Your task to perform on an android device: stop showing notifications on the lock screen Image 0: 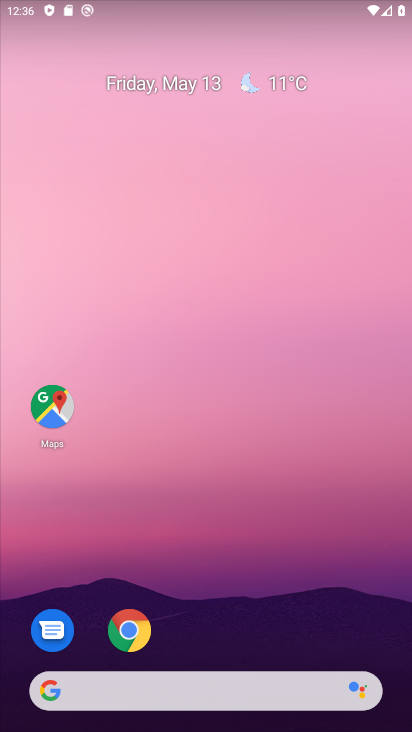
Step 0: drag from (365, 647) to (399, 0)
Your task to perform on an android device: stop showing notifications on the lock screen Image 1: 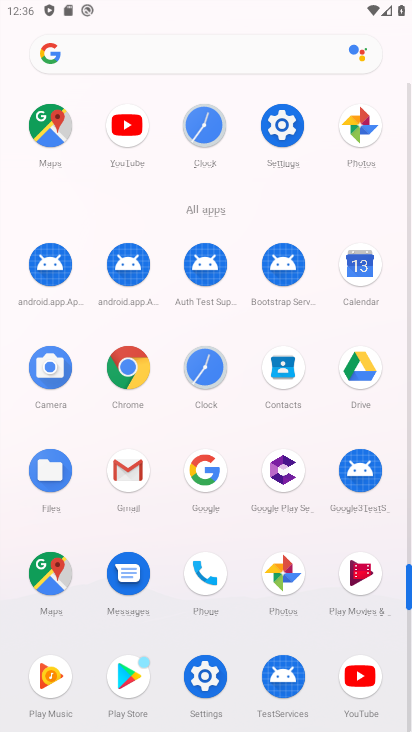
Step 1: click (282, 133)
Your task to perform on an android device: stop showing notifications on the lock screen Image 2: 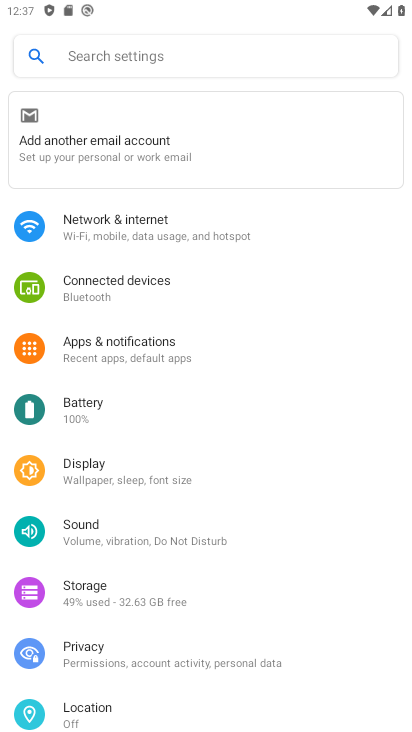
Step 2: click (126, 358)
Your task to perform on an android device: stop showing notifications on the lock screen Image 3: 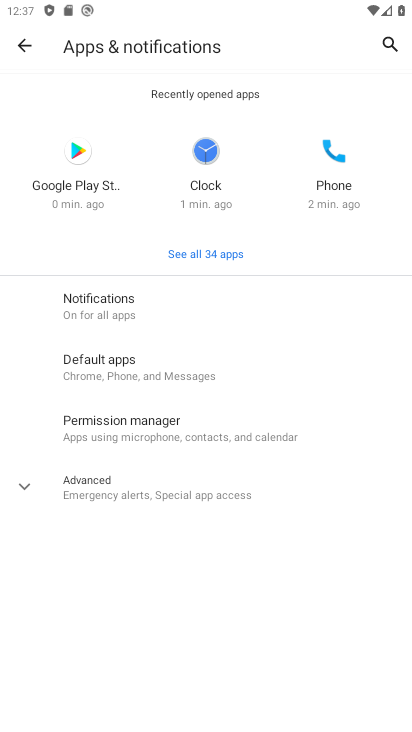
Step 3: click (101, 315)
Your task to perform on an android device: stop showing notifications on the lock screen Image 4: 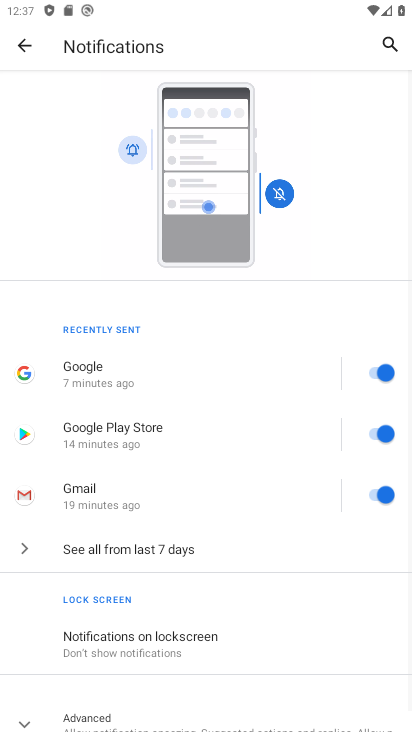
Step 4: click (130, 637)
Your task to perform on an android device: stop showing notifications on the lock screen Image 5: 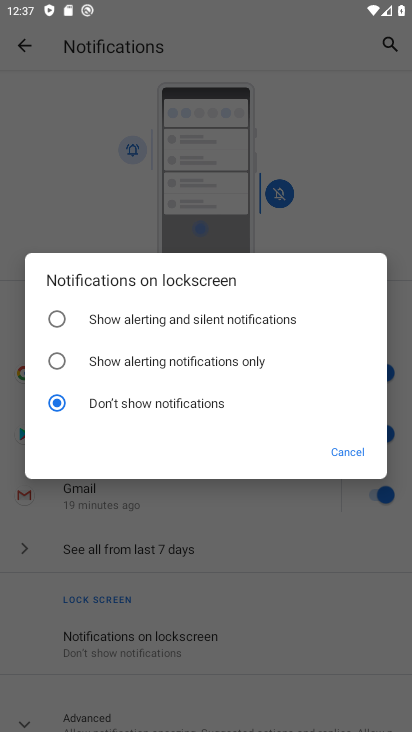
Step 5: task complete